Your task to perform on an android device: all mails in gmail Image 0: 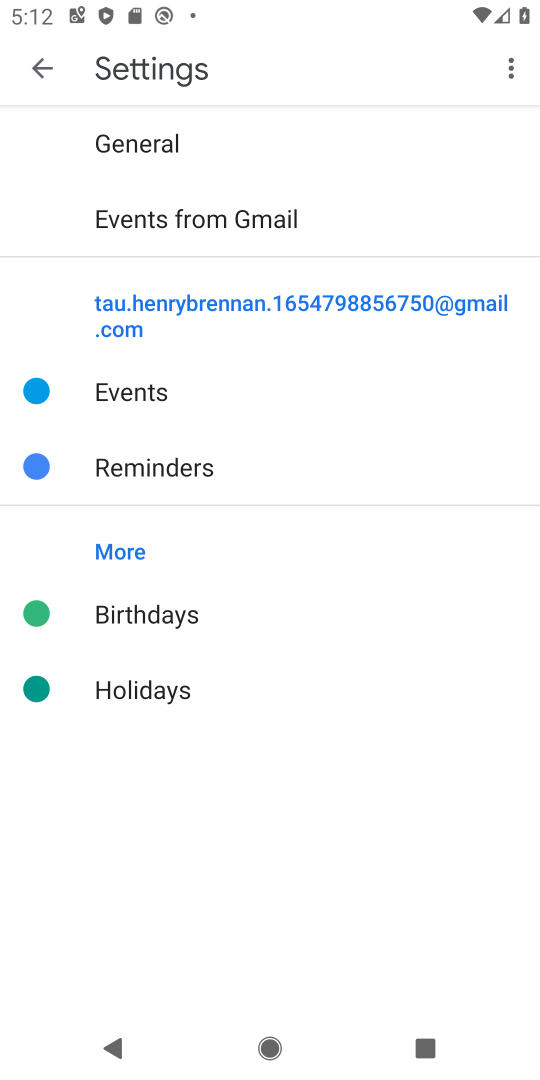
Step 0: press home button
Your task to perform on an android device: all mails in gmail Image 1: 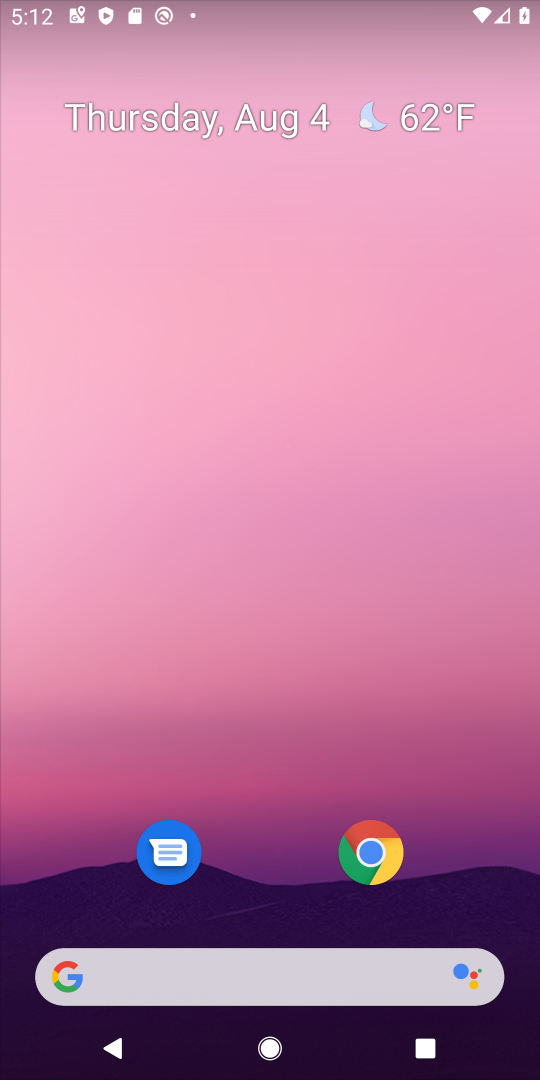
Step 1: drag from (251, 912) to (265, 114)
Your task to perform on an android device: all mails in gmail Image 2: 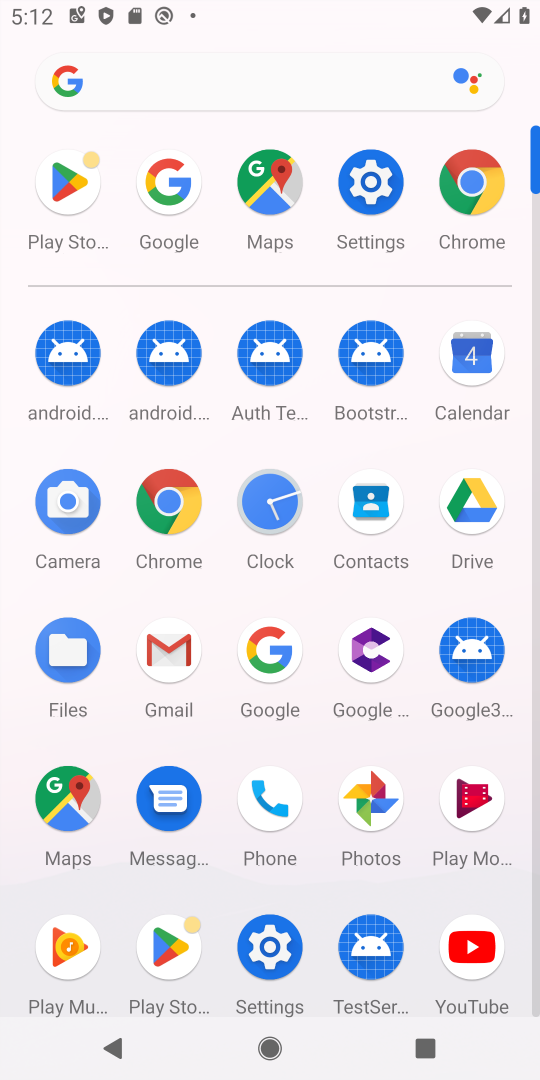
Step 2: click (179, 653)
Your task to perform on an android device: all mails in gmail Image 3: 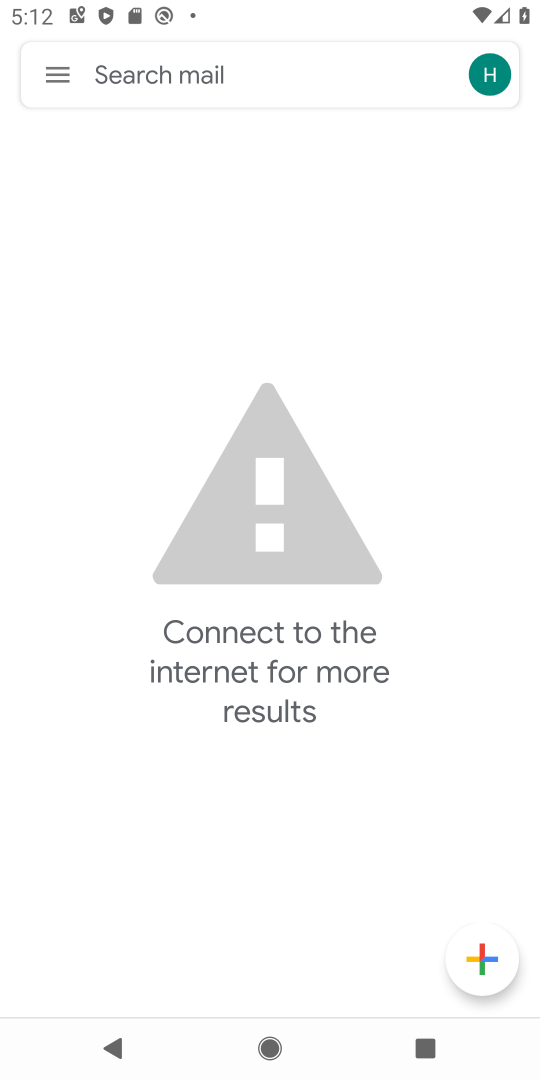
Step 3: click (53, 56)
Your task to perform on an android device: all mails in gmail Image 4: 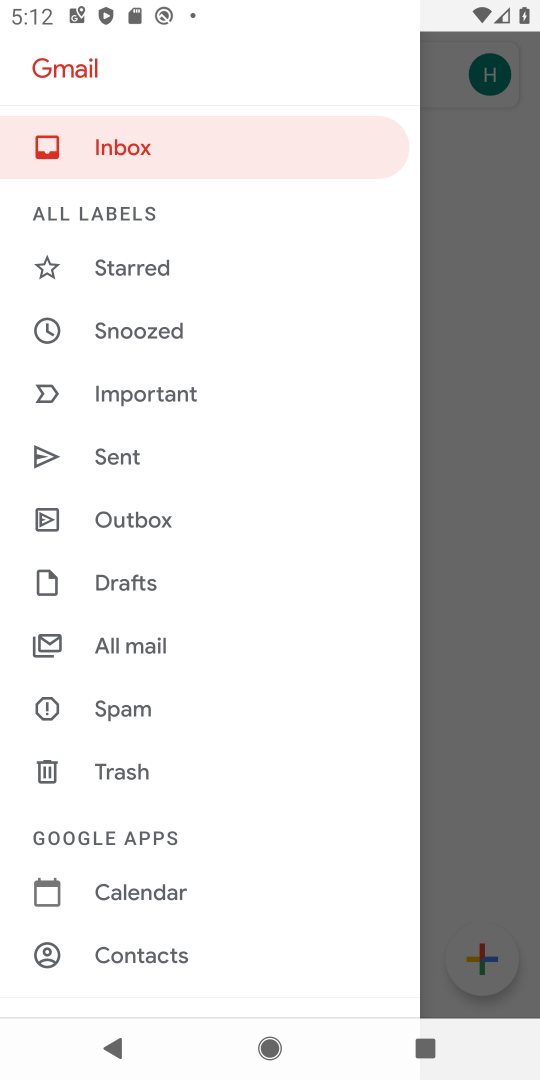
Step 4: click (135, 646)
Your task to perform on an android device: all mails in gmail Image 5: 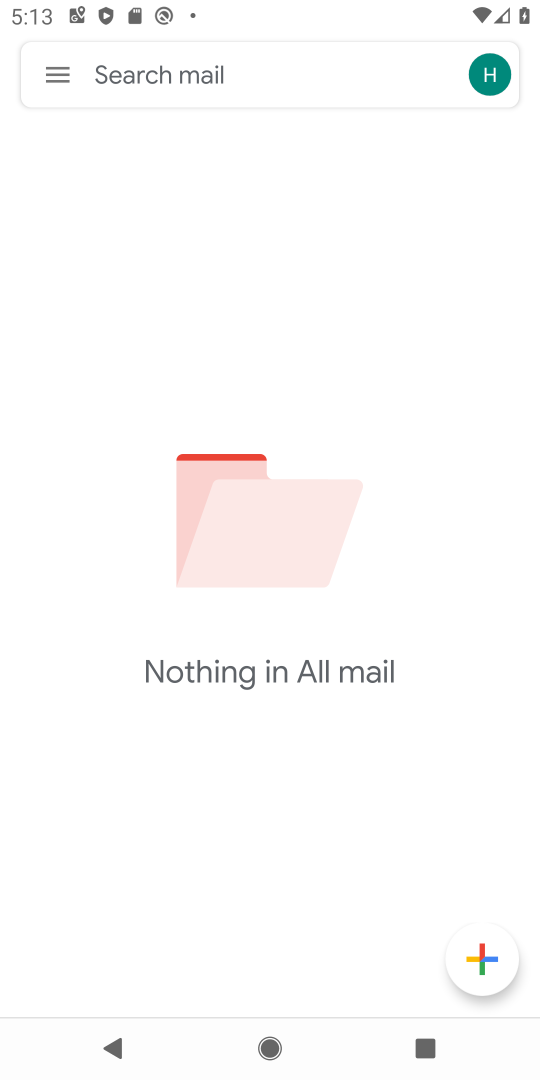
Step 5: task complete